Your task to perform on an android device: Go to internet settings Image 0: 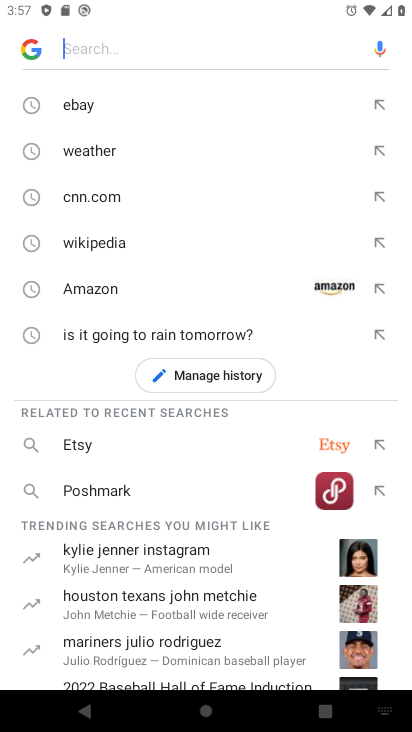
Step 0: press home button
Your task to perform on an android device: Go to internet settings Image 1: 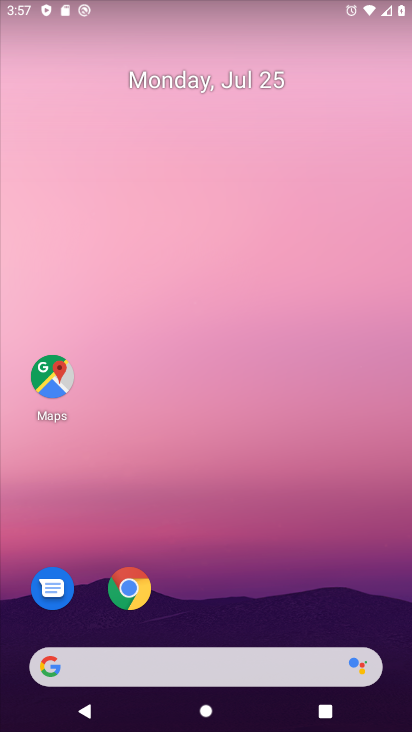
Step 1: drag from (238, 728) to (246, 51)
Your task to perform on an android device: Go to internet settings Image 2: 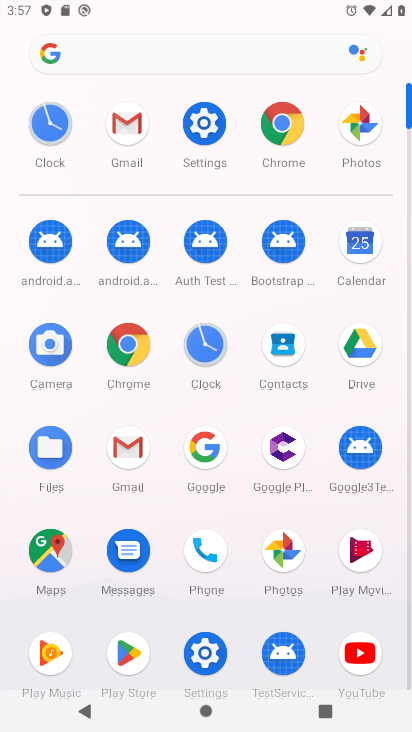
Step 2: click (210, 123)
Your task to perform on an android device: Go to internet settings Image 3: 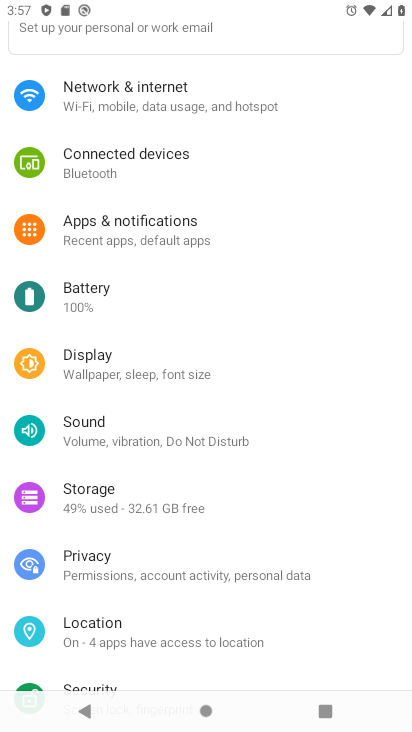
Step 3: click (140, 96)
Your task to perform on an android device: Go to internet settings Image 4: 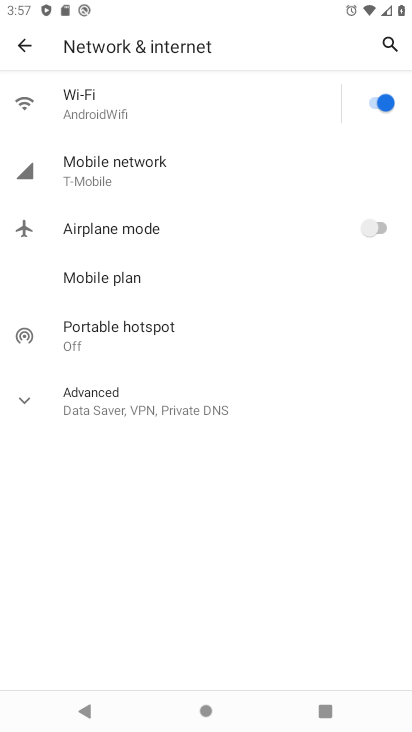
Step 4: task complete